Your task to perform on an android device: Open settings Image 0: 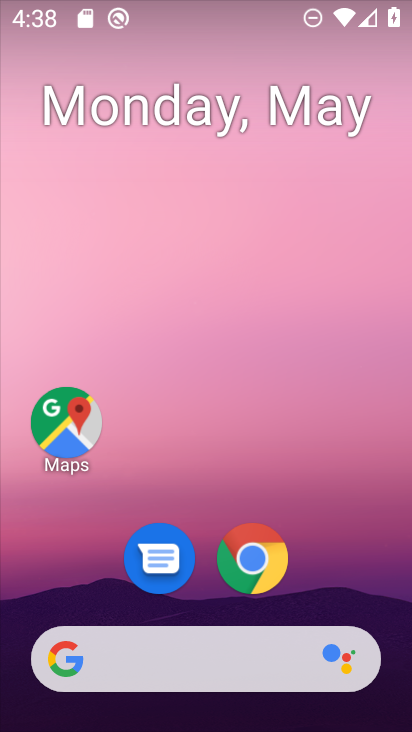
Step 0: drag from (342, 526) to (230, 100)
Your task to perform on an android device: Open settings Image 1: 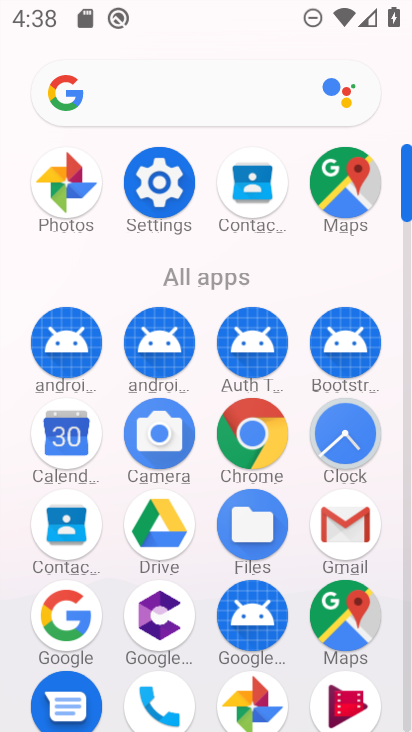
Step 1: click (157, 186)
Your task to perform on an android device: Open settings Image 2: 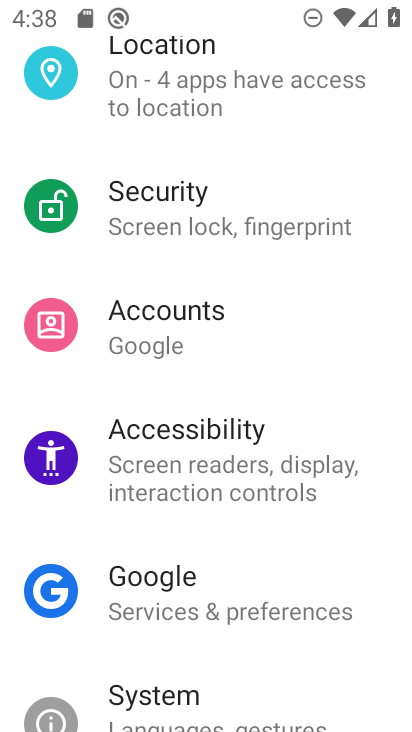
Step 2: task complete